Your task to perform on an android device: open a bookmark in the chrome app Image 0: 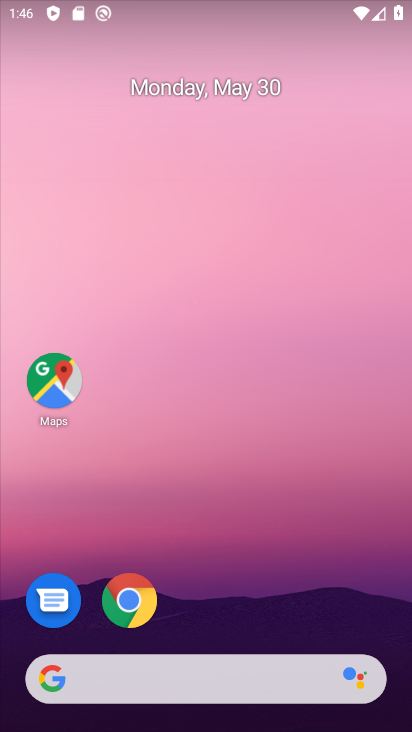
Step 0: click (140, 602)
Your task to perform on an android device: open a bookmark in the chrome app Image 1: 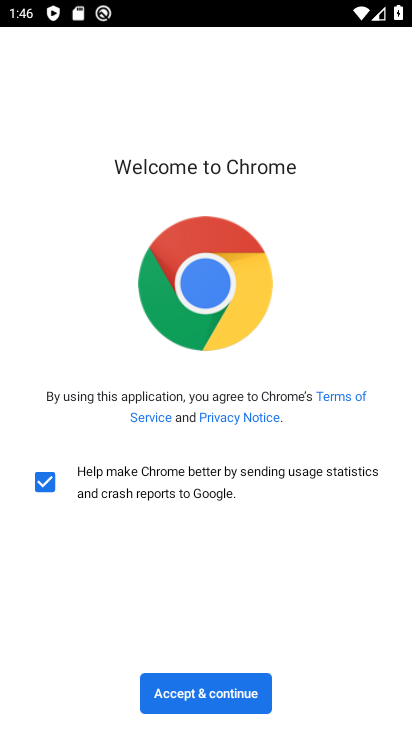
Step 1: click (200, 693)
Your task to perform on an android device: open a bookmark in the chrome app Image 2: 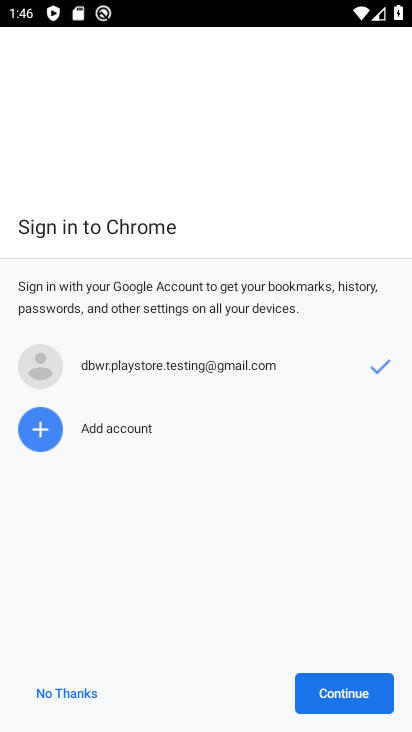
Step 2: click (365, 694)
Your task to perform on an android device: open a bookmark in the chrome app Image 3: 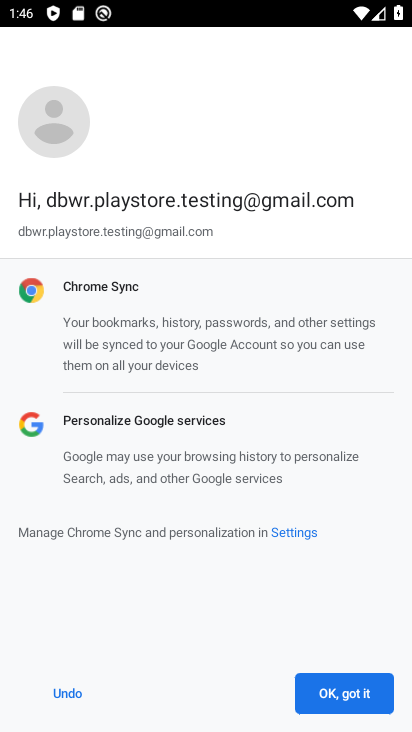
Step 3: click (365, 694)
Your task to perform on an android device: open a bookmark in the chrome app Image 4: 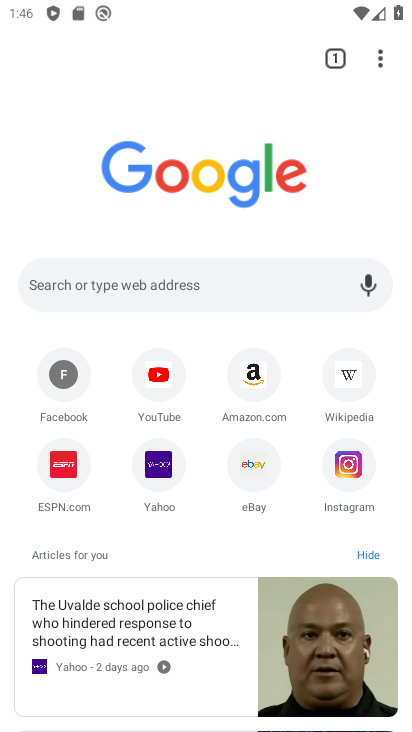
Step 4: click (384, 56)
Your task to perform on an android device: open a bookmark in the chrome app Image 5: 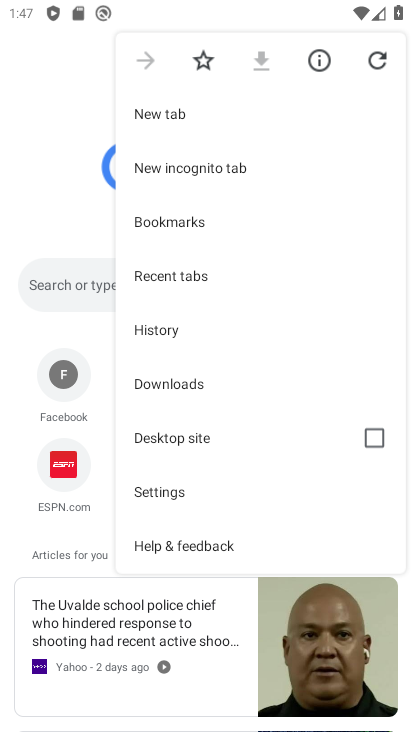
Step 5: click (182, 222)
Your task to perform on an android device: open a bookmark in the chrome app Image 6: 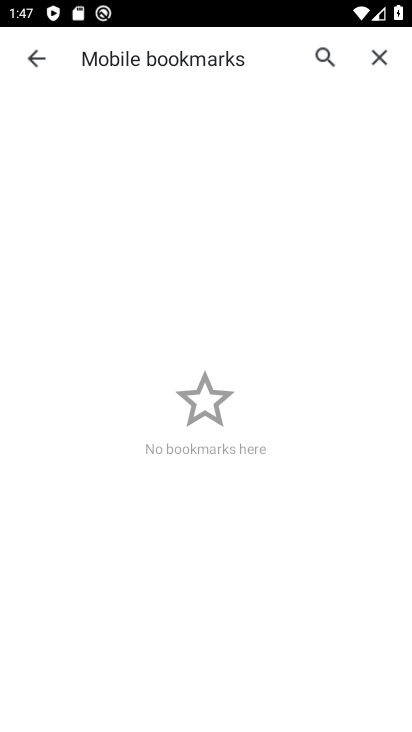
Step 6: task complete